Your task to perform on an android device: Add "logitech g pro" to the cart on target.com Image 0: 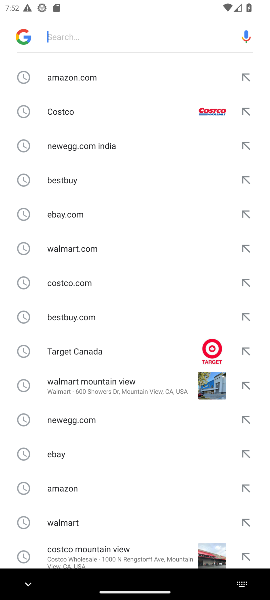
Step 0: press home button
Your task to perform on an android device: Add "logitech g pro" to the cart on target.com Image 1: 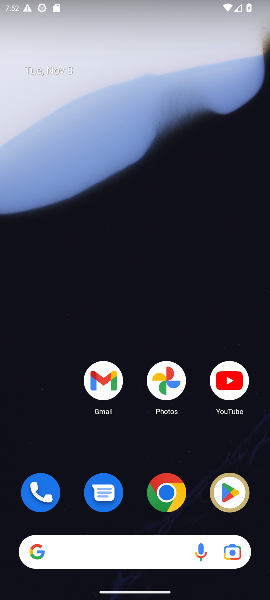
Step 1: click (167, 493)
Your task to perform on an android device: Add "logitech g pro" to the cart on target.com Image 2: 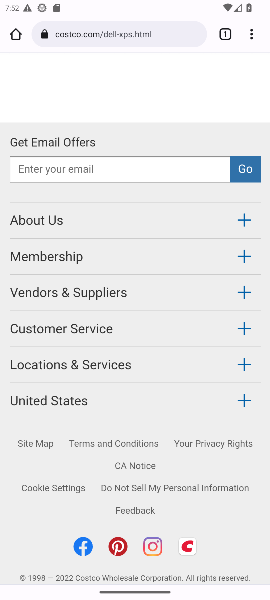
Step 2: click (75, 28)
Your task to perform on an android device: Add "logitech g pro" to the cart on target.com Image 3: 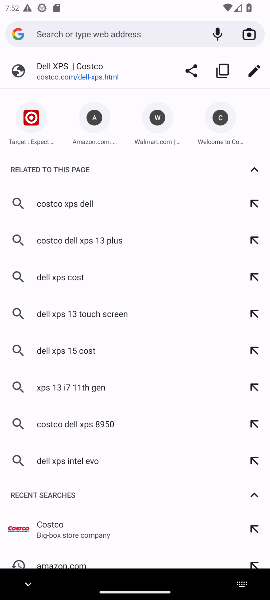
Step 3: type "target.com"
Your task to perform on an android device: Add "logitech g pro" to the cart on target.com Image 4: 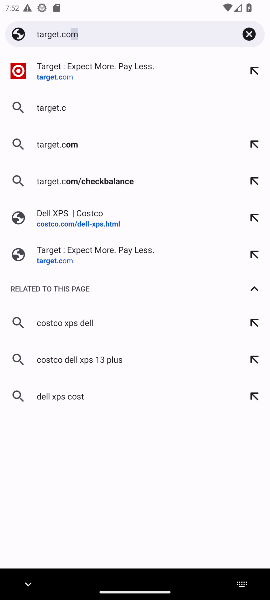
Step 4: press enter
Your task to perform on an android device: Add "logitech g pro" to the cart on target.com Image 5: 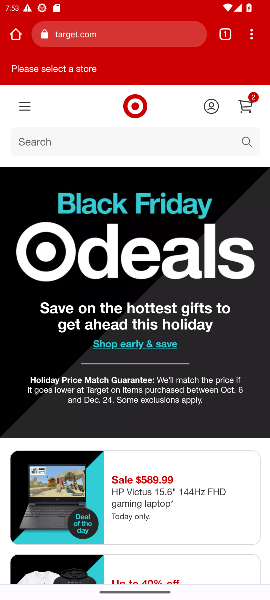
Step 5: click (113, 143)
Your task to perform on an android device: Add "logitech g pro" to the cart on target.com Image 6: 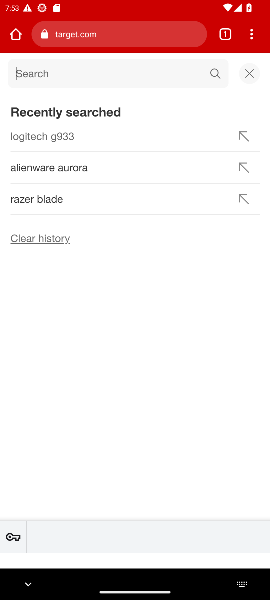
Step 6: type "logitech g pro"
Your task to perform on an android device: Add "logitech g pro" to the cart on target.com Image 7: 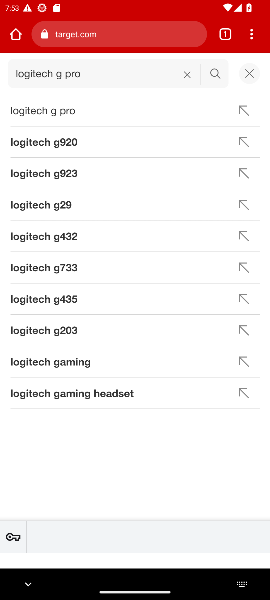
Step 7: press enter
Your task to perform on an android device: Add "logitech g pro" to the cart on target.com Image 8: 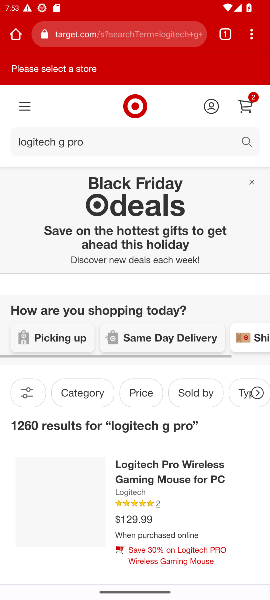
Step 8: click (127, 483)
Your task to perform on an android device: Add "logitech g pro" to the cart on target.com Image 9: 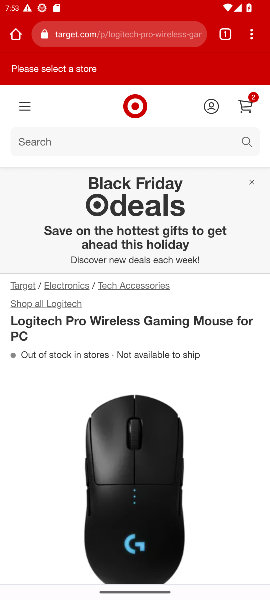
Step 9: drag from (179, 505) to (170, 239)
Your task to perform on an android device: Add "logitech g pro" to the cart on target.com Image 10: 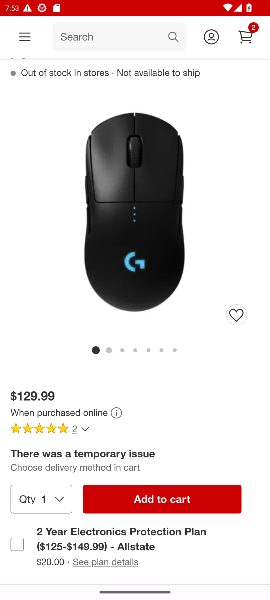
Step 10: click (163, 504)
Your task to perform on an android device: Add "logitech g pro" to the cart on target.com Image 11: 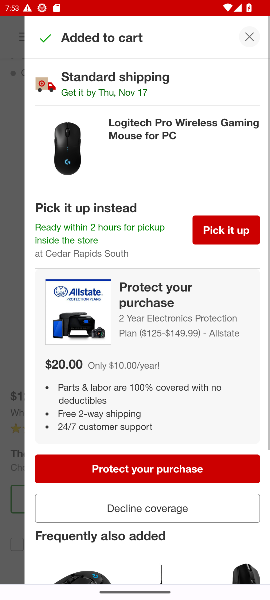
Step 11: drag from (181, 386) to (164, 164)
Your task to perform on an android device: Add "logitech g pro" to the cart on target.com Image 12: 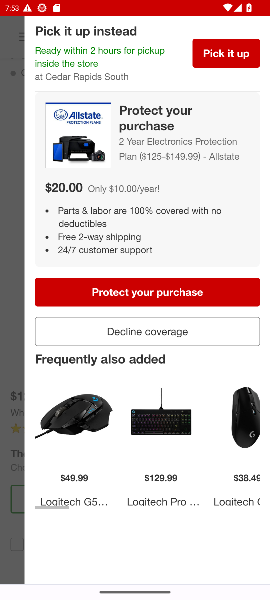
Step 12: click (150, 294)
Your task to perform on an android device: Add "logitech g pro" to the cart on target.com Image 13: 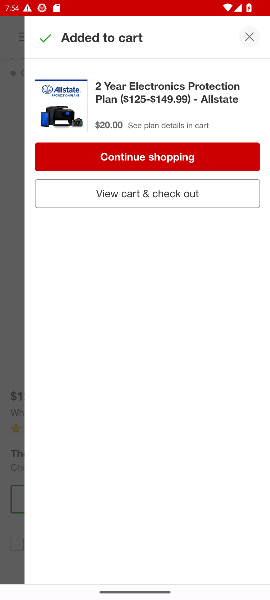
Step 13: click (160, 192)
Your task to perform on an android device: Add "logitech g pro" to the cart on target.com Image 14: 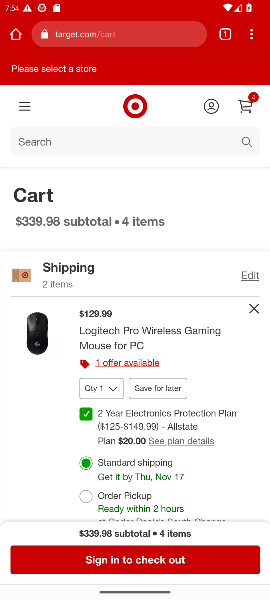
Step 14: click (145, 566)
Your task to perform on an android device: Add "logitech g pro" to the cart on target.com Image 15: 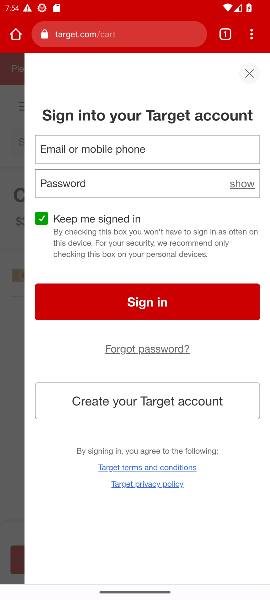
Step 15: task complete